Your task to perform on an android device: Open CNN.com Image 0: 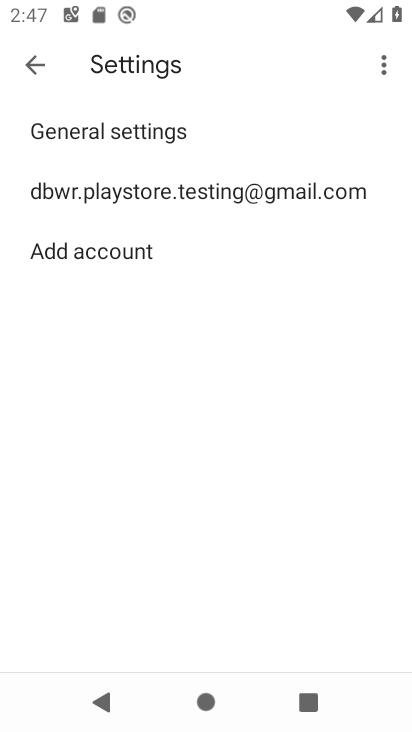
Step 0: press home button
Your task to perform on an android device: Open CNN.com Image 1: 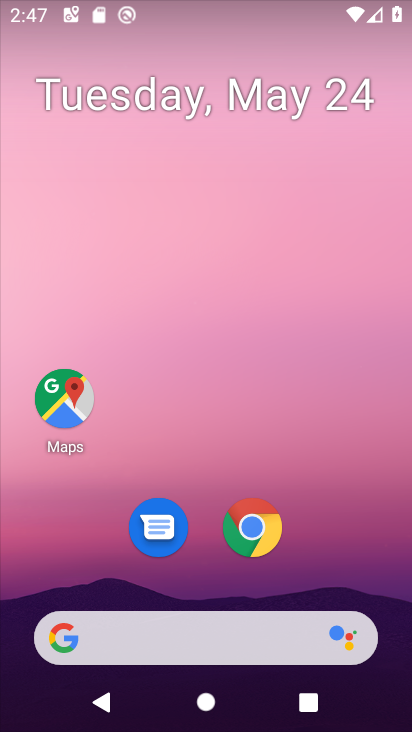
Step 1: click (250, 532)
Your task to perform on an android device: Open CNN.com Image 2: 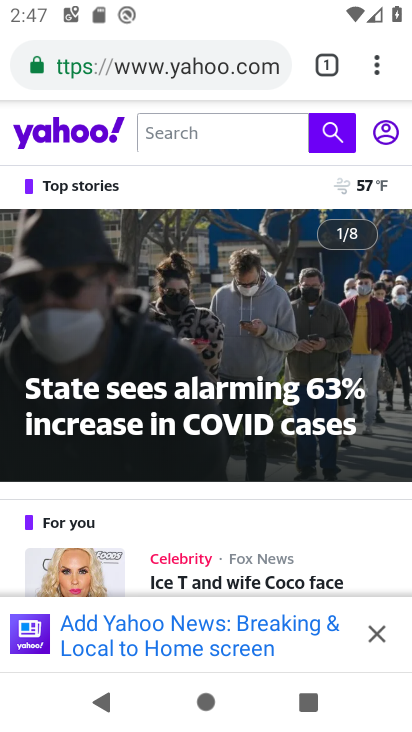
Step 2: click (147, 72)
Your task to perform on an android device: Open CNN.com Image 3: 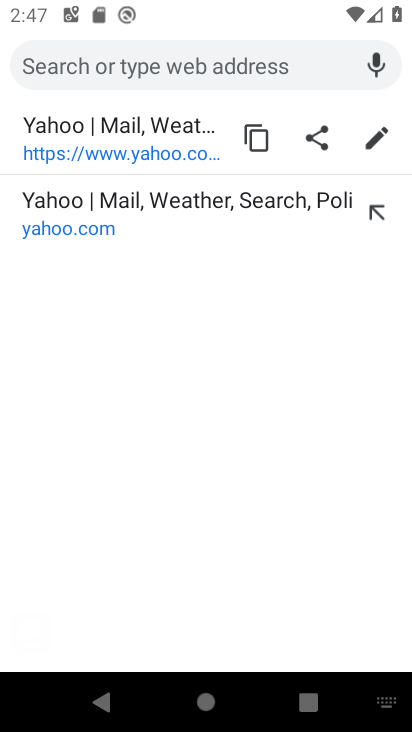
Step 3: type "cnn.com"
Your task to perform on an android device: Open CNN.com Image 4: 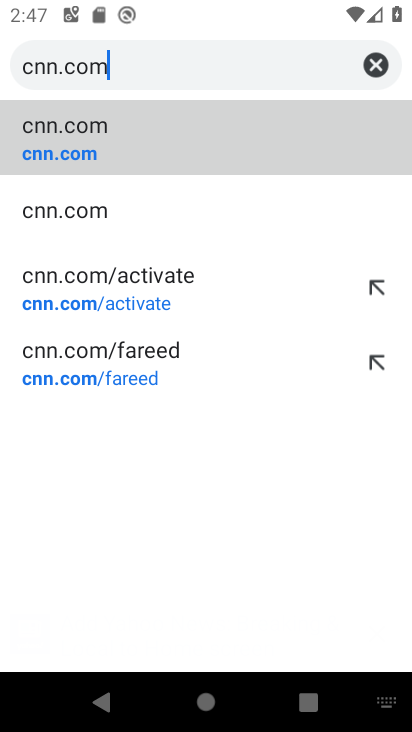
Step 4: click (20, 160)
Your task to perform on an android device: Open CNN.com Image 5: 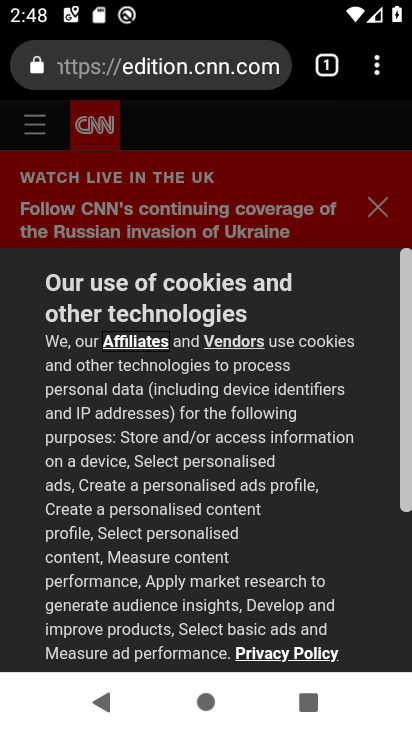
Step 5: task complete